Your task to perform on an android device: Find coffee shops on Maps Image 0: 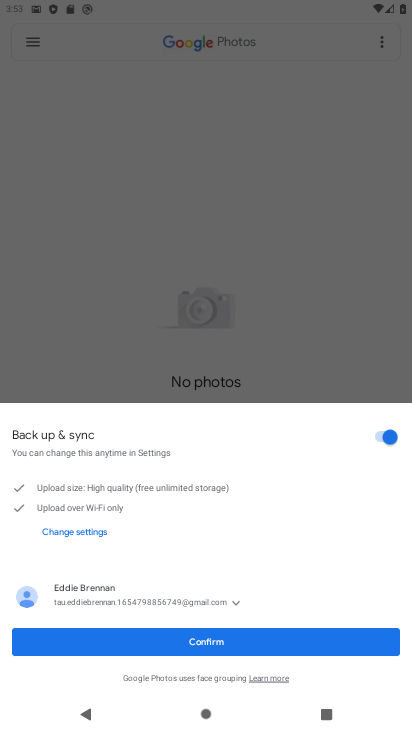
Step 0: press home button
Your task to perform on an android device: Find coffee shops on Maps Image 1: 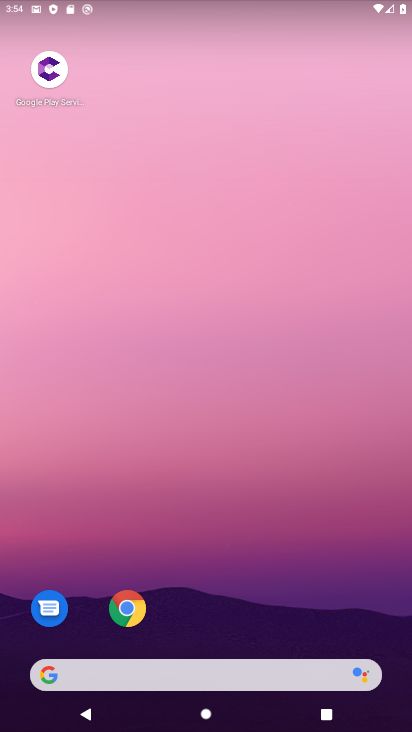
Step 1: drag from (187, 643) to (206, 7)
Your task to perform on an android device: Find coffee shops on Maps Image 2: 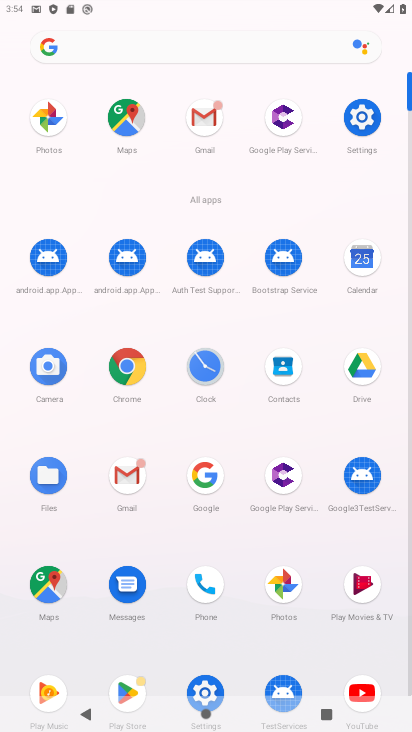
Step 2: click (51, 580)
Your task to perform on an android device: Find coffee shops on Maps Image 3: 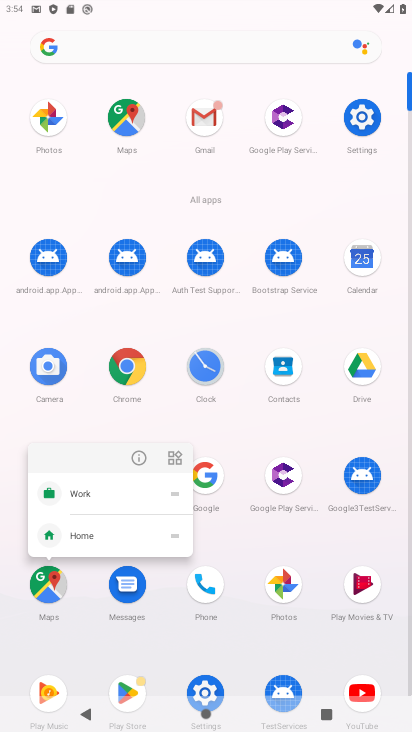
Step 3: click (50, 581)
Your task to perform on an android device: Find coffee shops on Maps Image 4: 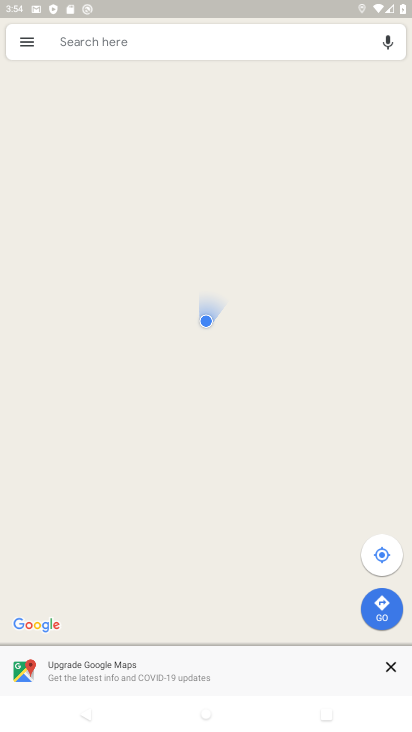
Step 4: click (137, 59)
Your task to perform on an android device: Find coffee shops on Maps Image 5: 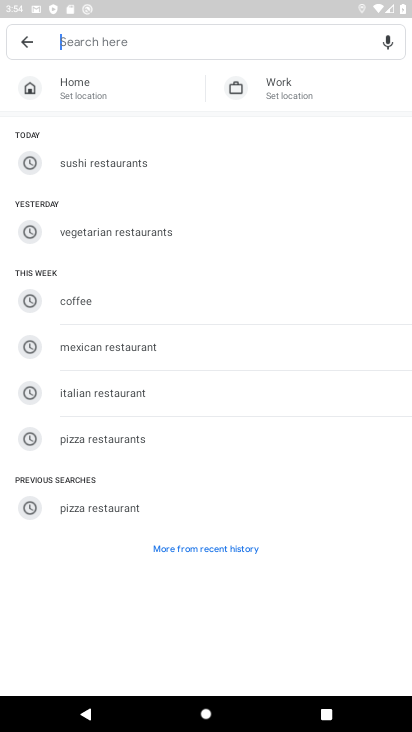
Step 5: click (48, 292)
Your task to perform on an android device: Find coffee shops on Maps Image 6: 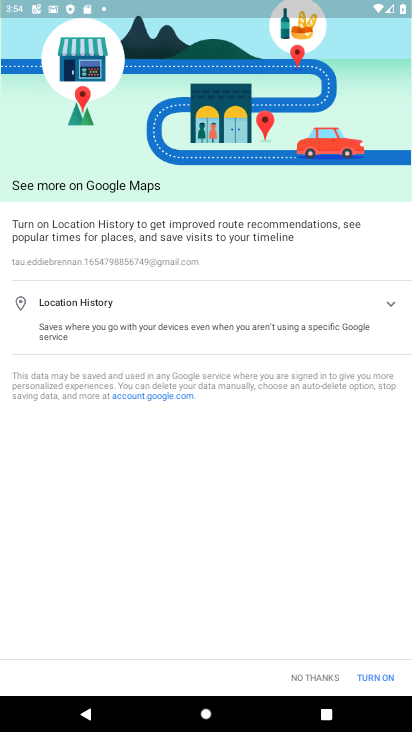
Step 6: click (385, 684)
Your task to perform on an android device: Find coffee shops on Maps Image 7: 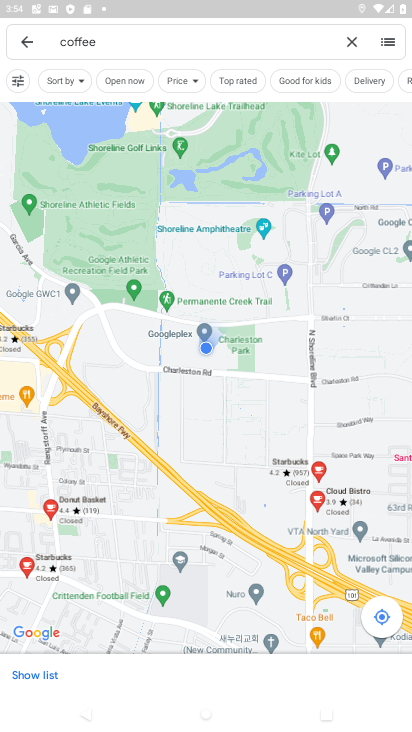
Step 7: task complete